Your task to perform on an android device: Go to Wikipedia Image 0: 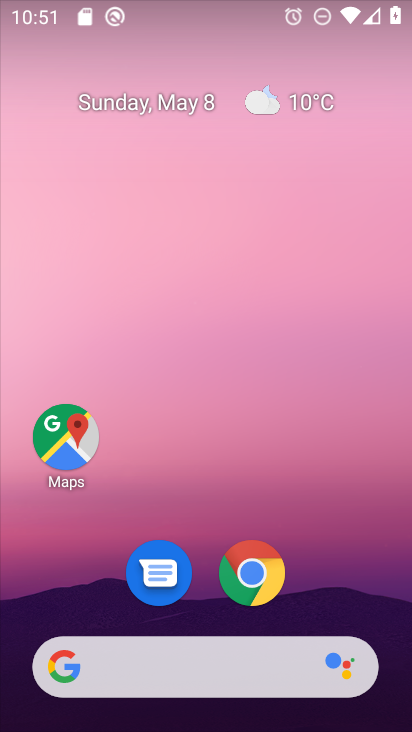
Step 0: click (266, 563)
Your task to perform on an android device: Go to Wikipedia Image 1: 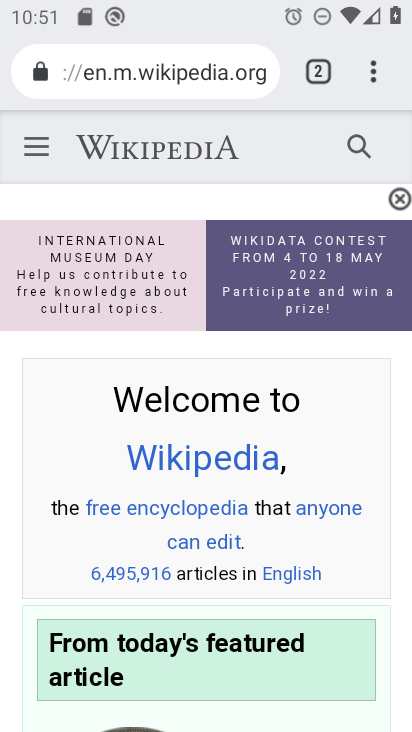
Step 1: task complete